Your task to perform on an android device: turn off data saver in the chrome app Image 0: 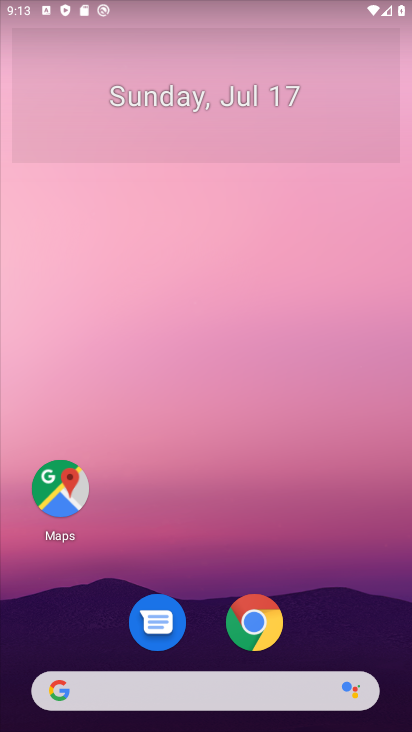
Step 0: click (255, 626)
Your task to perform on an android device: turn off data saver in the chrome app Image 1: 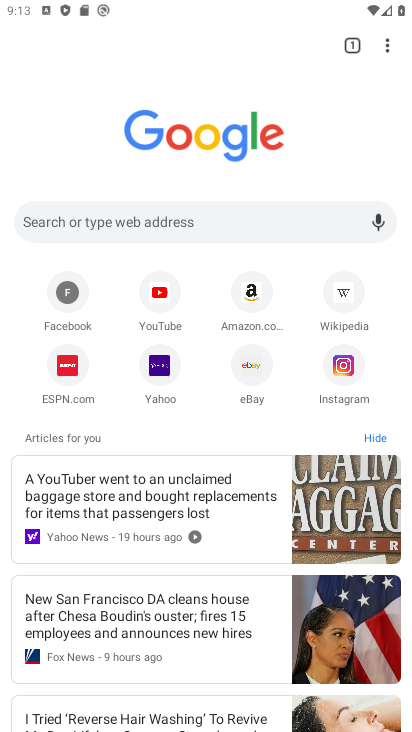
Step 1: click (388, 40)
Your task to perform on an android device: turn off data saver in the chrome app Image 2: 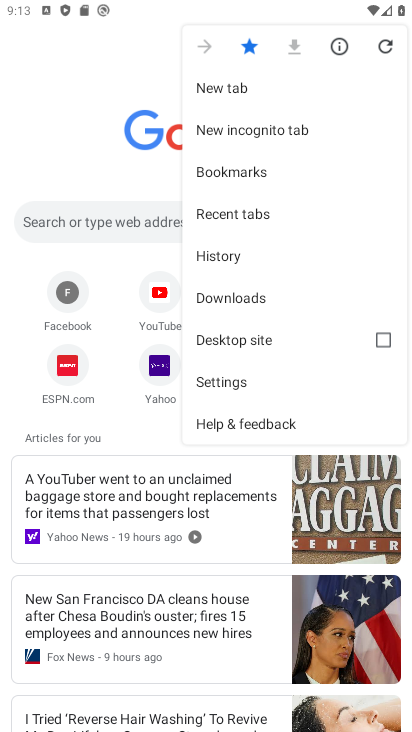
Step 2: click (219, 382)
Your task to perform on an android device: turn off data saver in the chrome app Image 3: 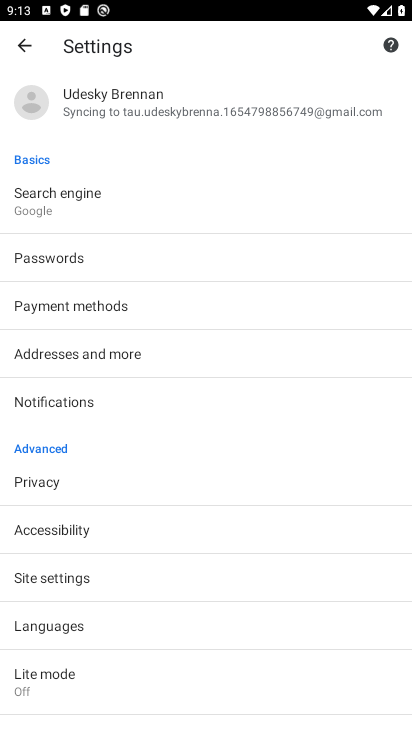
Step 3: click (87, 683)
Your task to perform on an android device: turn off data saver in the chrome app Image 4: 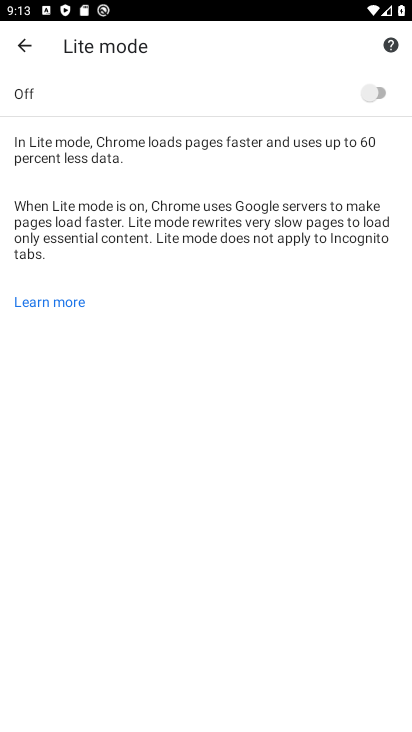
Step 4: task complete